Your task to perform on an android device: Open privacy settings Image 0: 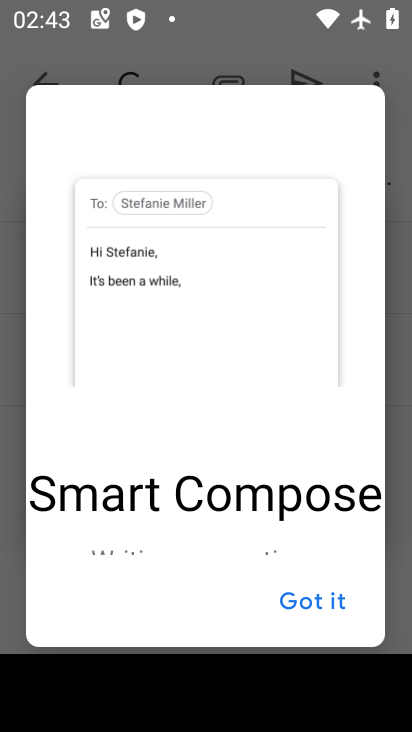
Step 0: press home button
Your task to perform on an android device: Open privacy settings Image 1: 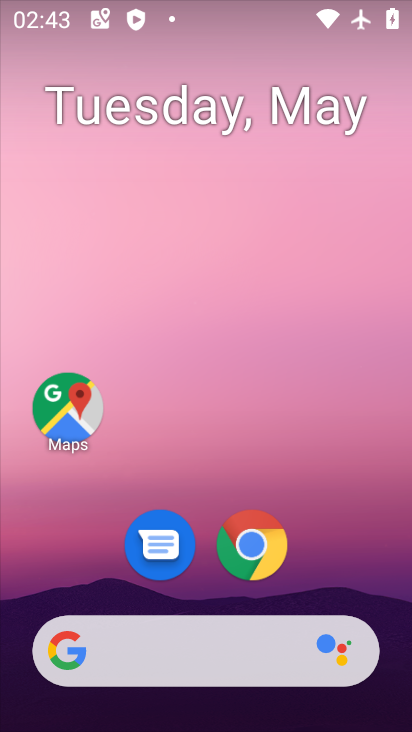
Step 1: drag from (390, 617) to (326, 78)
Your task to perform on an android device: Open privacy settings Image 2: 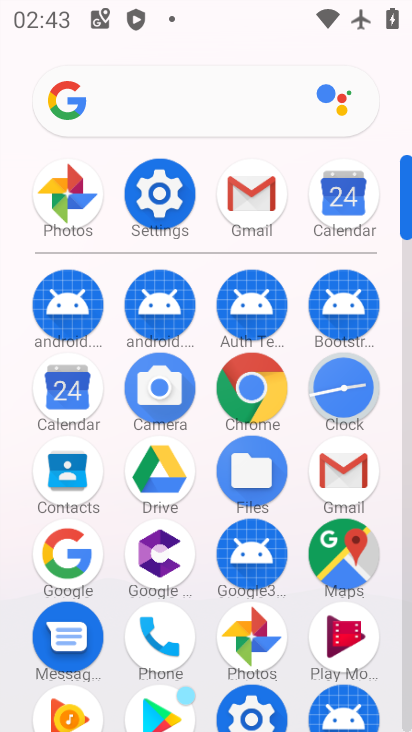
Step 2: click (406, 687)
Your task to perform on an android device: Open privacy settings Image 3: 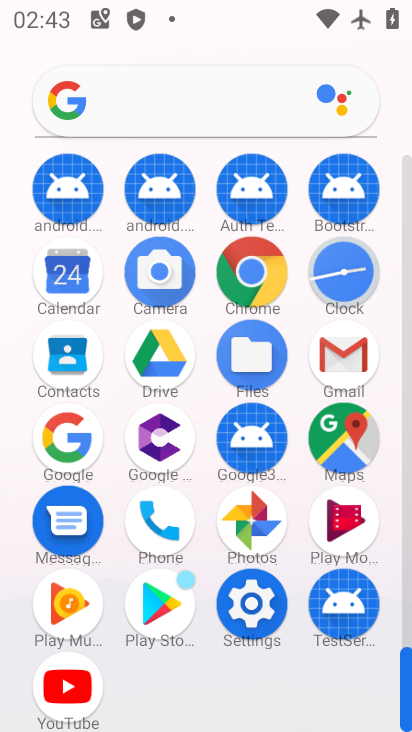
Step 3: click (248, 605)
Your task to perform on an android device: Open privacy settings Image 4: 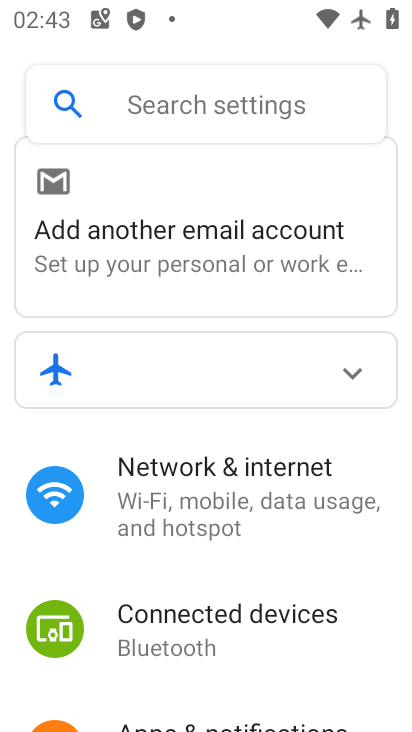
Step 4: drag from (326, 663) to (294, 254)
Your task to perform on an android device: Open privacy settings Image 5: 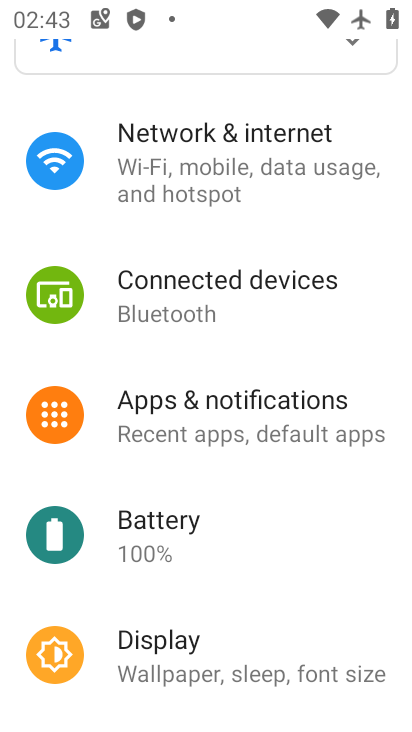
Step 5: drag from (327, 608) to (333, 195)
Your task to perform on an android device: Open privacy settings Image 6: 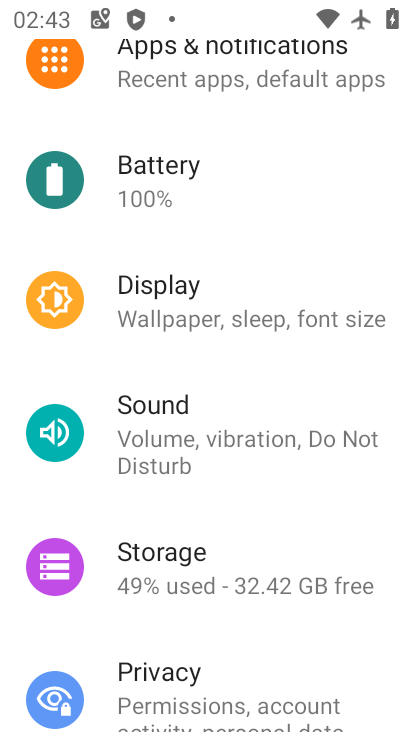
Step 6: drag from (323, 614) to (293, 183)
Your task to perform on an android device: Open privacy settings Image 7: 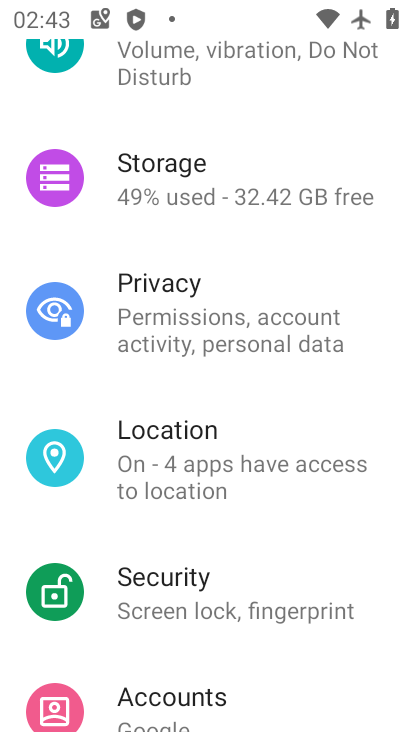
Step 7: click (167, 317)
Your task to perform on an android device: Open privacy settings Image 8: 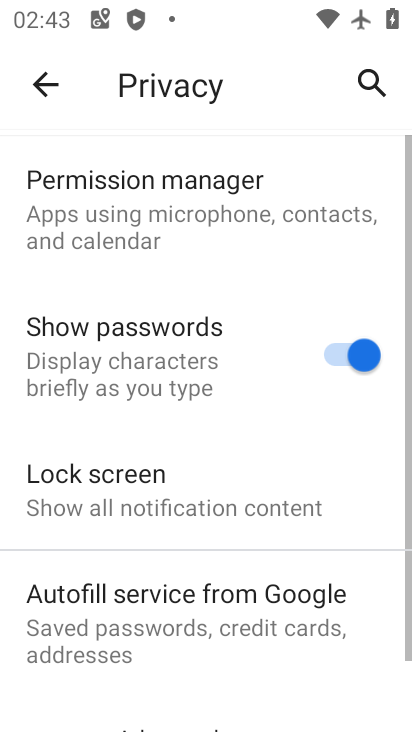
Step 8: drag from (243, 589) to (224, 208)
Your task to perform on an android device: Open privacy settings Image 9: 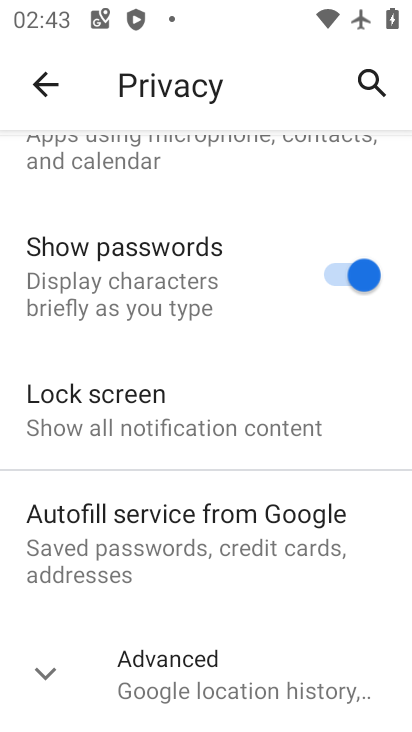
Step 9: click (42, 669)
Your task to perform on an android device: Open privacy settings Image 10: 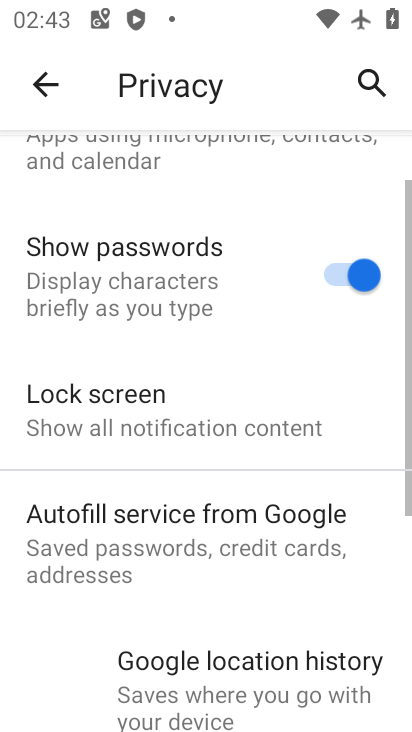
Step 10: task complete